Your task to perform on an android device: What's on my calendar tomorrow? Image 0: 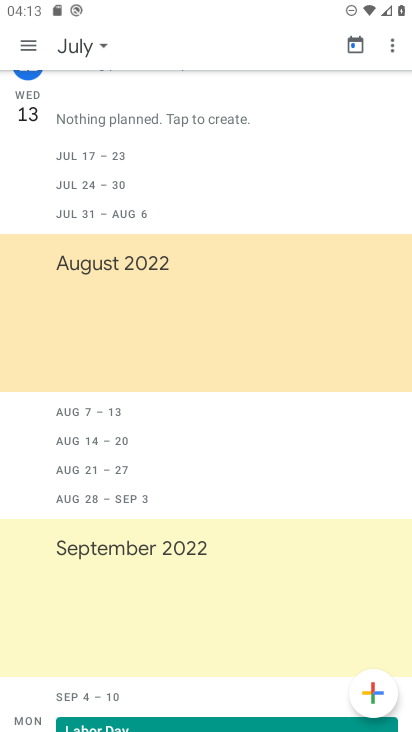
Step 0: click (24, 46)
Your task to perform on an android device: What's on my calendar tomorrow? Image 1: 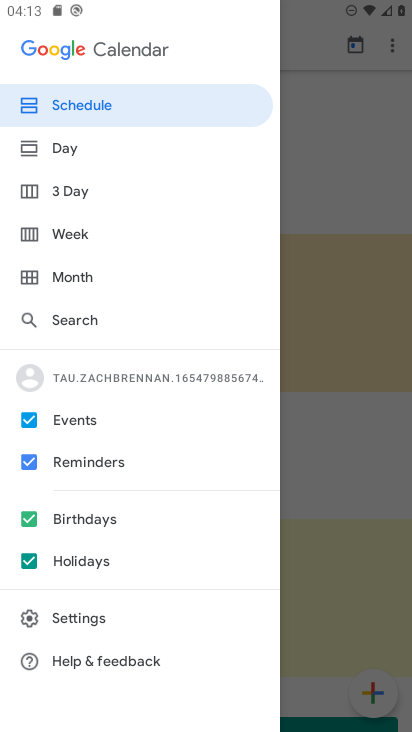
Step 1: click (68, 147)
Your task to perform on an android device: What's on my calendar tomorrow? Image 2: 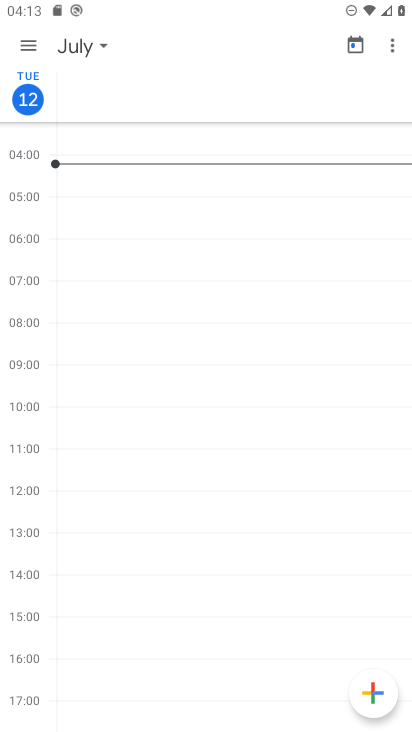
Step 2: click (105, 48)
Your task to perform on an android device: What's on my calendar tomorrow? Image 3: 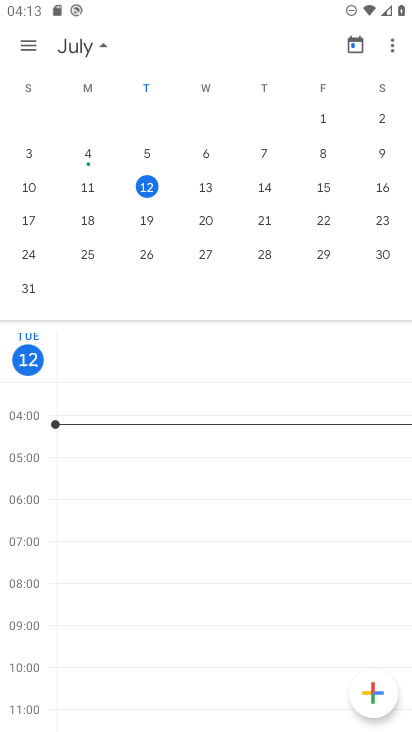
Step 3: click (207, 188)
Your task to perform on an android device: What's on my calendar tomorrow? Image 4: 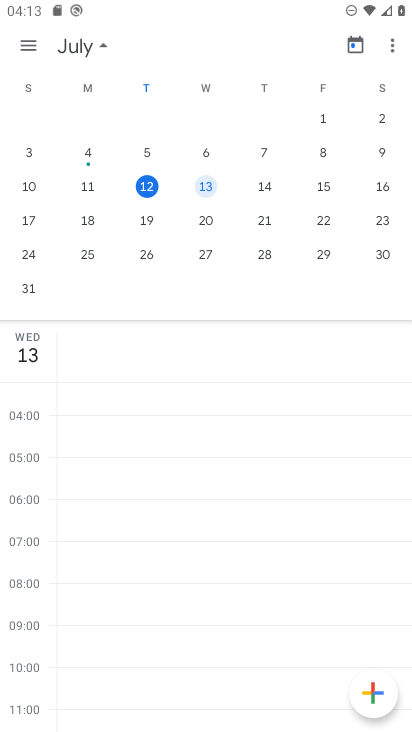
Step 4: task complete